Your task to perform on an android device: manage bookmarks in the chrome app Image 0: 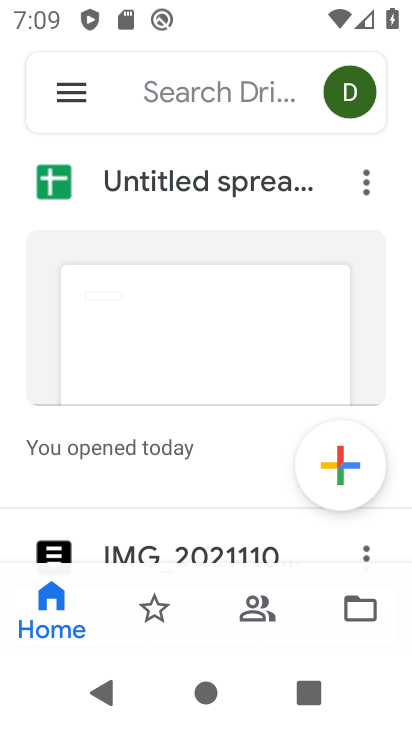
Step 0: press home button
Your task to perform on an android device: manage bookmarks in the chrome app Image 1: 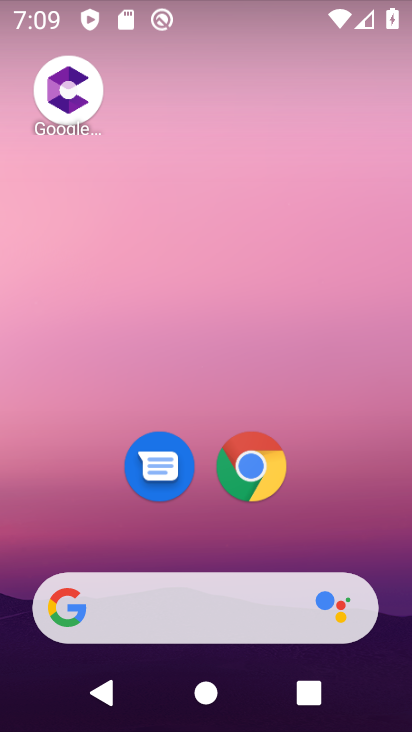
Step 1: click (254, 465)
Your task to perform on an android device: manage bookmarks in the chrome app Image 2: 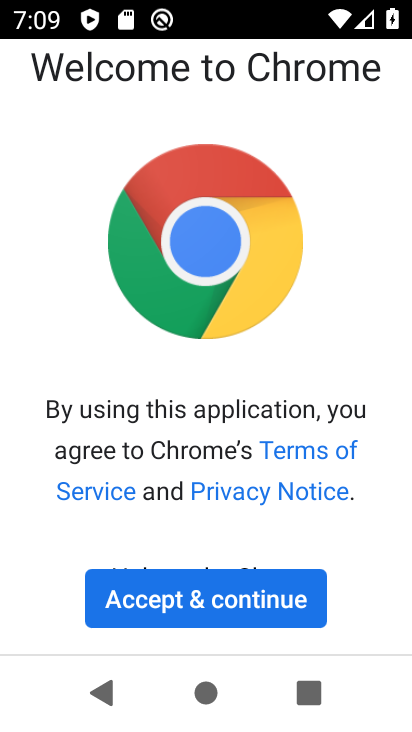
Step 2: click (244, 585)
Your task to perform on an android device: manage bookmarks in the chrome app Image 3: 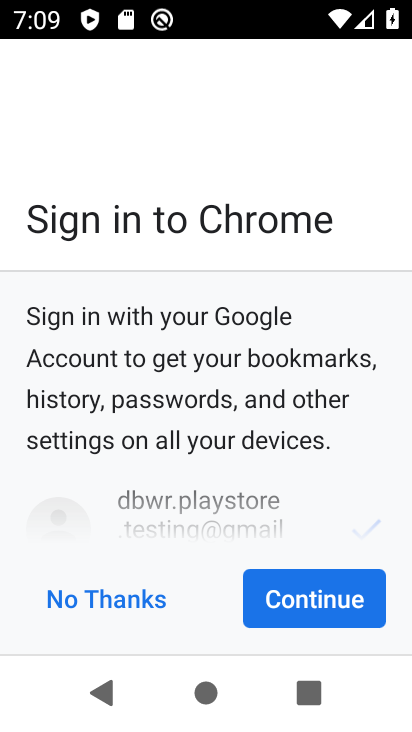
Step 3: click (268, 593)
Your task to perform on an android device: manage bookmarks in the chrome app Image 4: 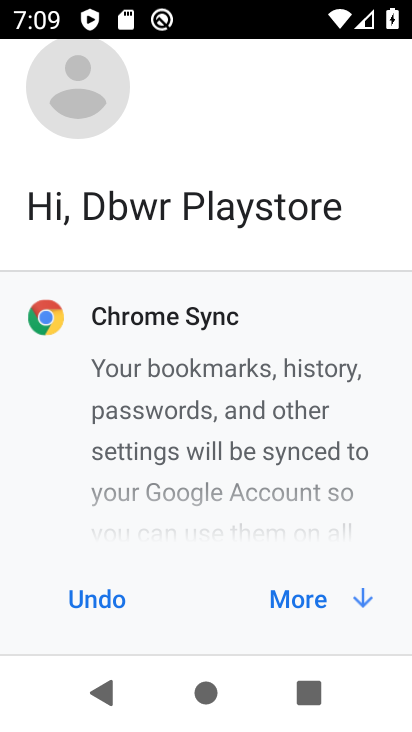
Step 4: click (287, 599)
Your task to perform on an android device: manage bookmarks in the chrome app Image 5: 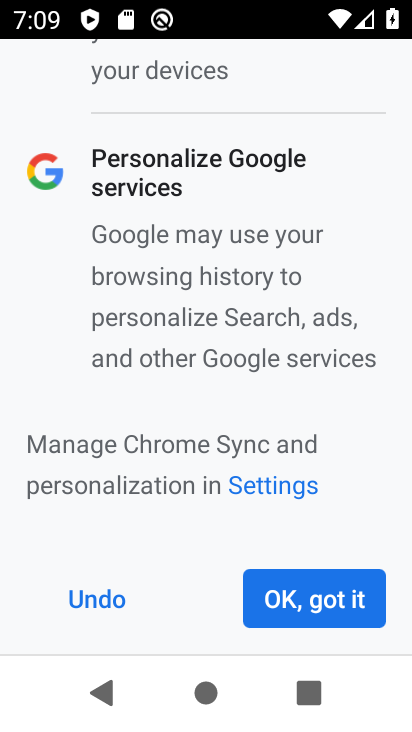
Step 5: click (287, 599)
Your task to perform on an android device: manage bookmarks in the chrome app Image 6: 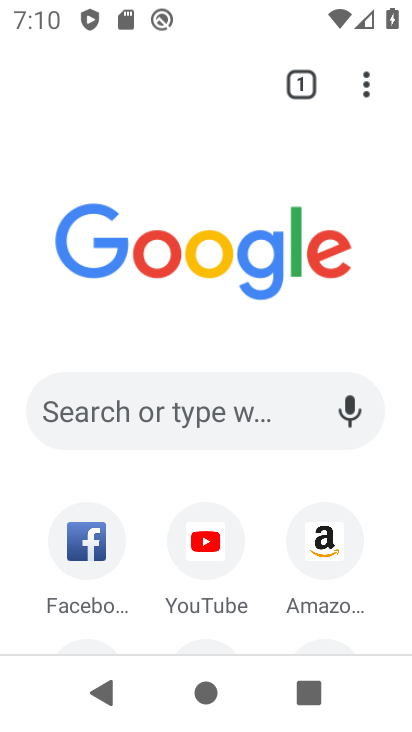
Step 6: drag from (372, 90) to (192, 319)
Your task to perform on an android device: manage bookmarks in the chrome app Image 7: 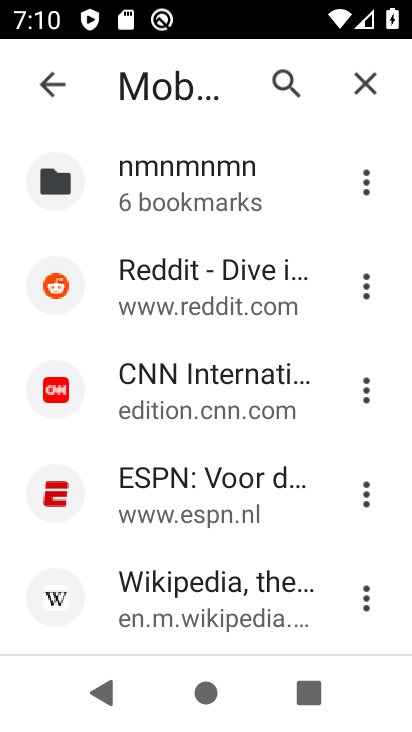
Step 7: click (361, 286)
Your task to perform on an android device: manage bookmarks in the chrome app Image 8: 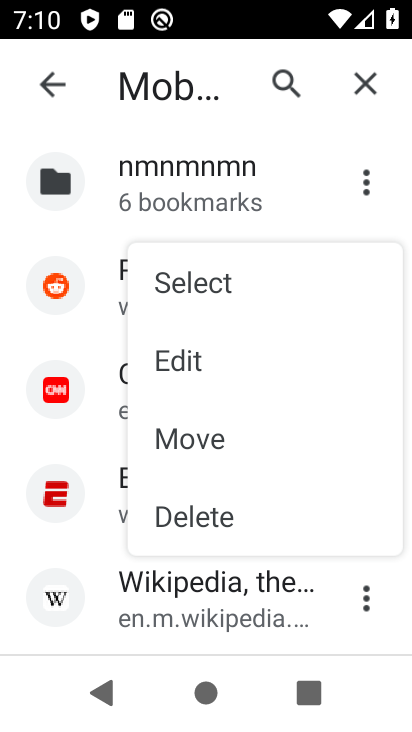
Step 8: click (228, 445)
Your task to perform on an android device: manage bookmarks in the chrome app Image 9: 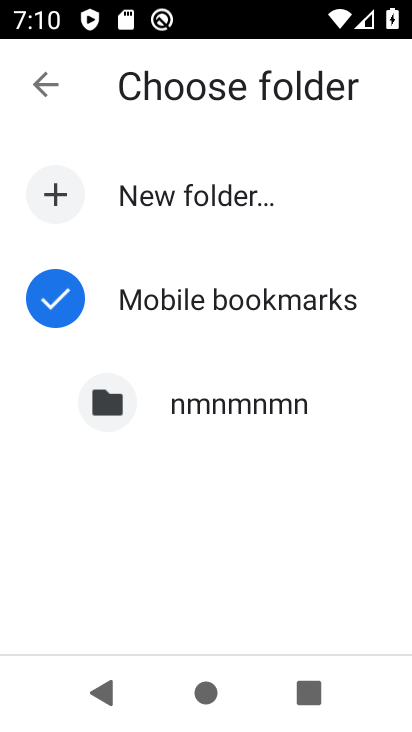
Step 9: click (110, 401)
Your task to perform on an android device: manage bookmarks in the chrome app Image 10: 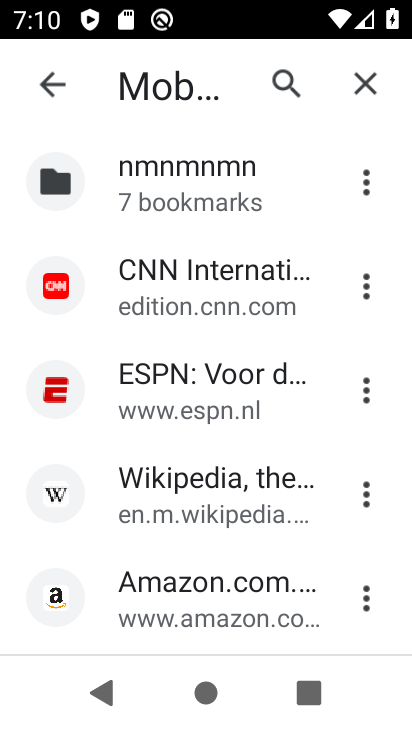
Step 10: task complete